Your task to perform on an android device: all mails in gmail Image 0: 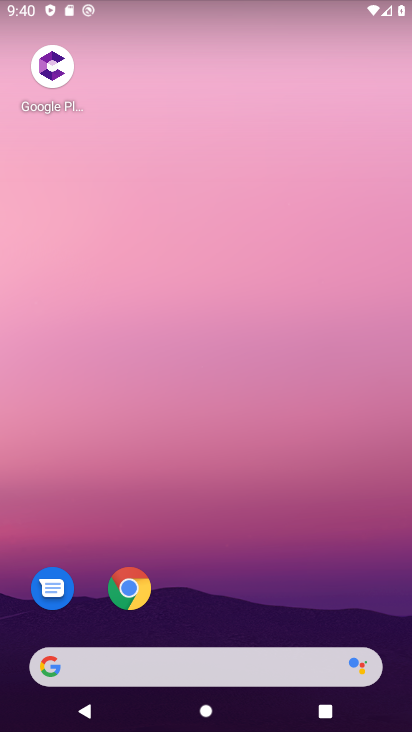
Step 0: drag from (214, 619) to (209, 73)
Your task to perform on an android device: all mails in gmail Image 1: 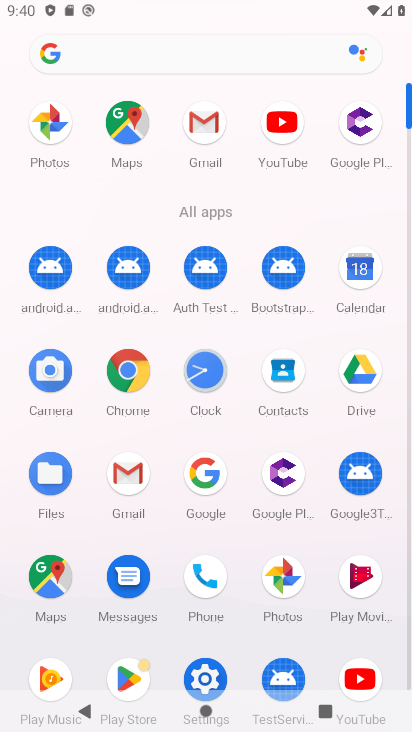
Step 1: click (209, 127)
Your task to perform on an android device: all mails in gmail Image 2: 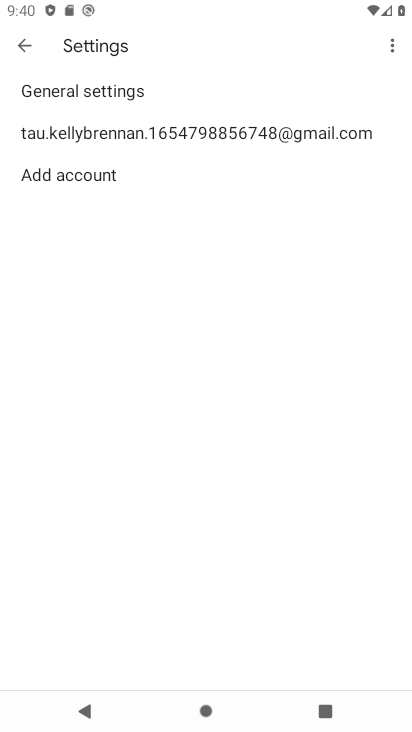
Step 2: click (185, 143)
Your task to perform on an android device: all mails in gmail Image 3: 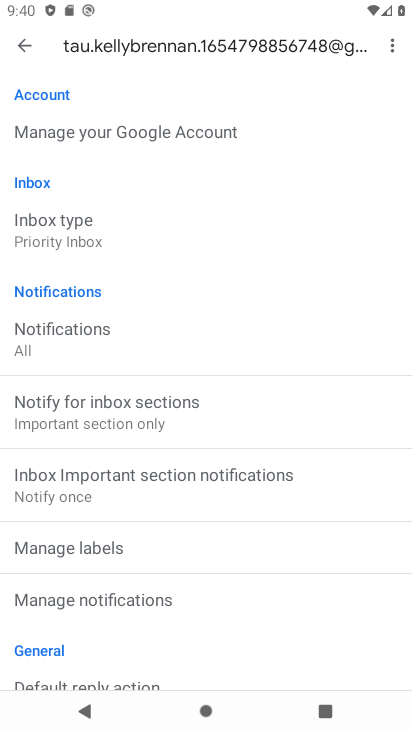
Step 3: click (35, 54)
Your task to perform on an android device: all mails in gmail Image 4: 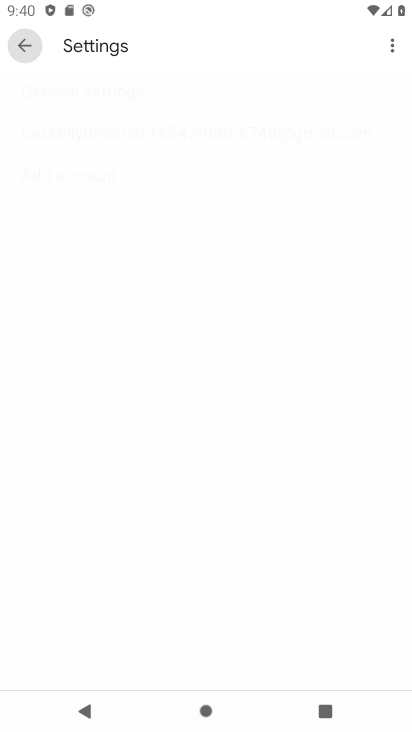
Step 4: click (35, 54)
Your task to perform on an android device: all mails in gmail Image 5: 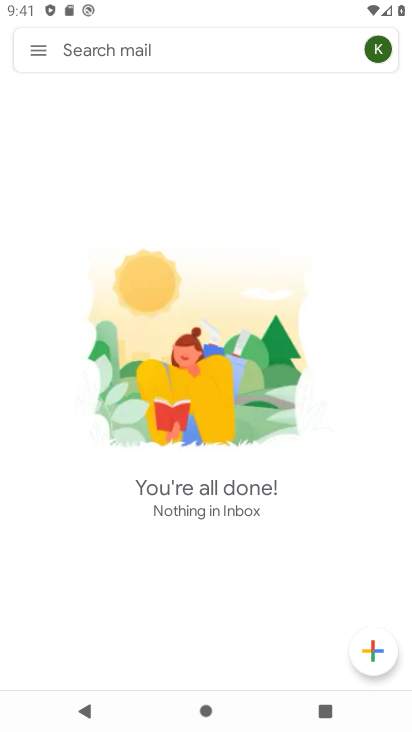
Step 5: click (35, 54)
Your task to perform on an android device: all mails in gmail Image 6: 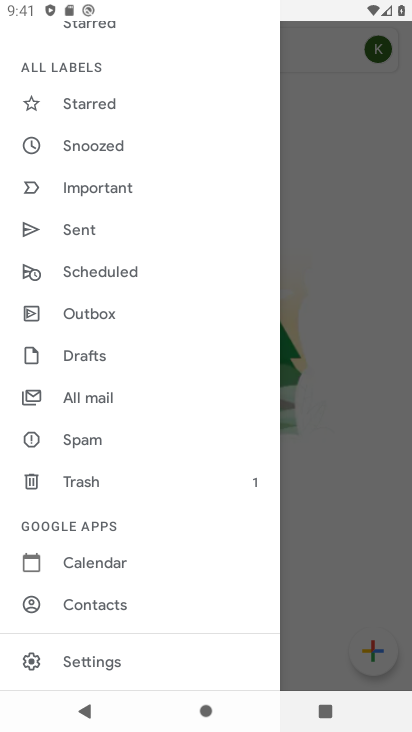
Step 6: click (97, 400)
Your task to perform on an android device: all mails in gmail Image 7: 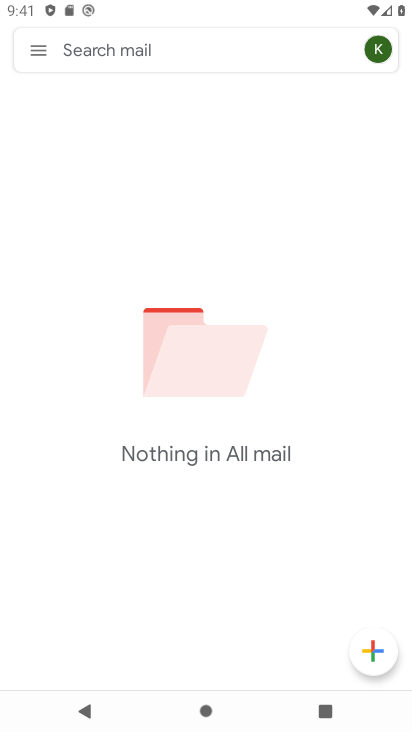
Step 7: task complete